Your task to perform on an android device: Go to Amazon Image 0: 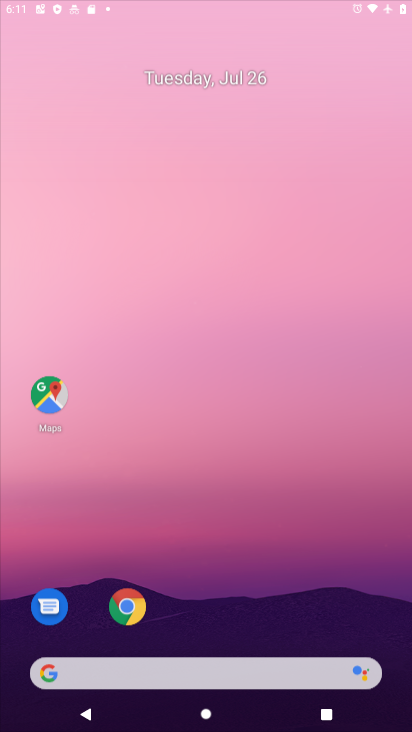
Step 0: press home button
Your task to perform on an android device: Go to Amazon Image 1: 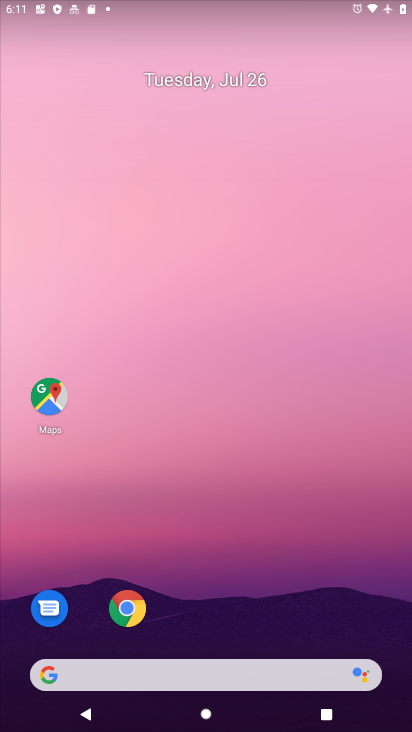
Step 1: click (45, 677)
Your task to perform on an android device: Go to Amazon Image 2: 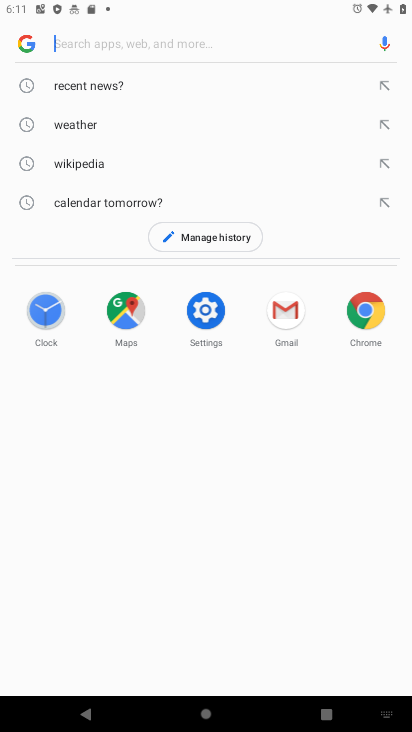
Step 2: type "Amazon"
Your task to perform on an android device: Go to Amazon Image 3: 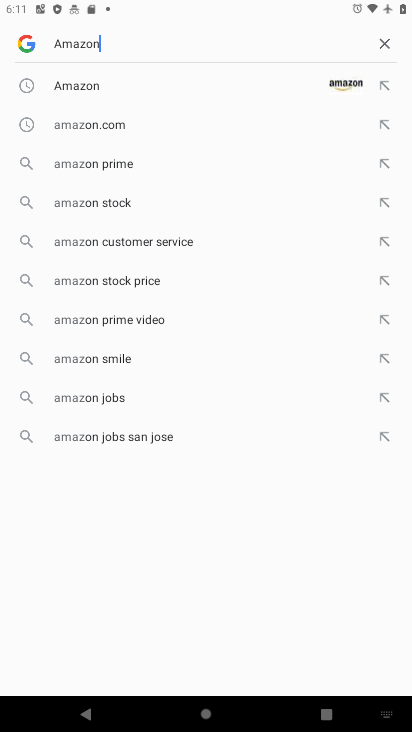
Step 3: press enter
Your task to perform on an android device: Go to Amazon Image 4: 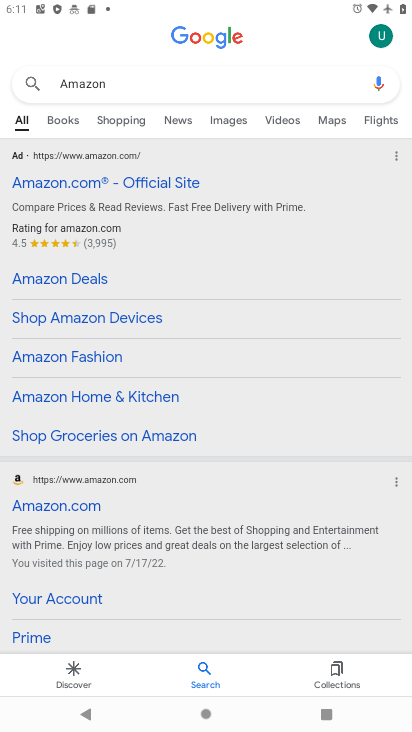
Step 4: click (87, 181)
Your task to perform on an android device: Go to Amazon Image 5: 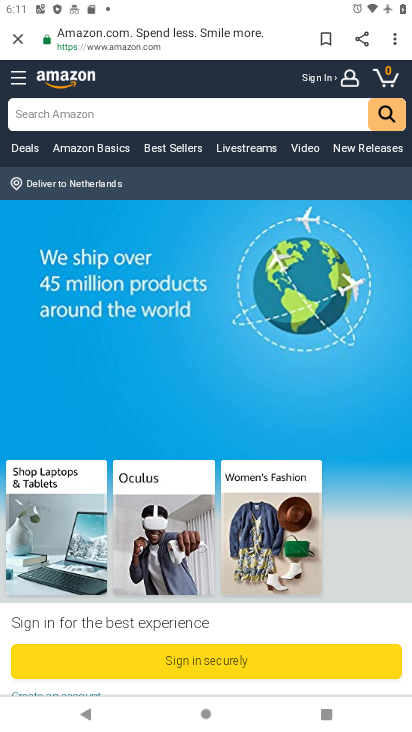
Step 5: task complete